Your task to perform on an android device: change keyboard looks Image 0: 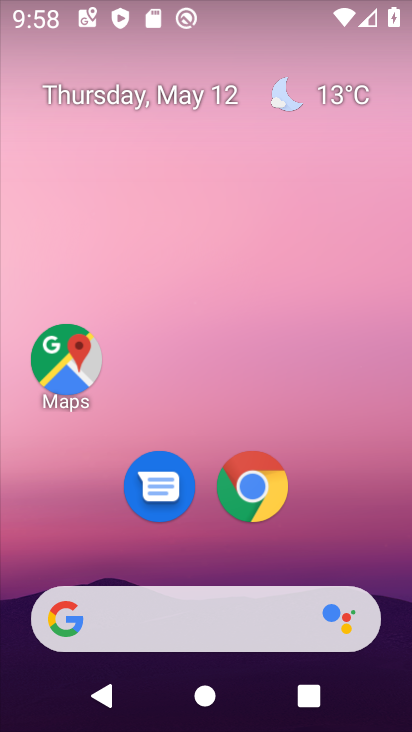
Step 0: drag from (376, 537) to (316, 165)
Your task to perform on an android device: change keyboard looks Image 1: 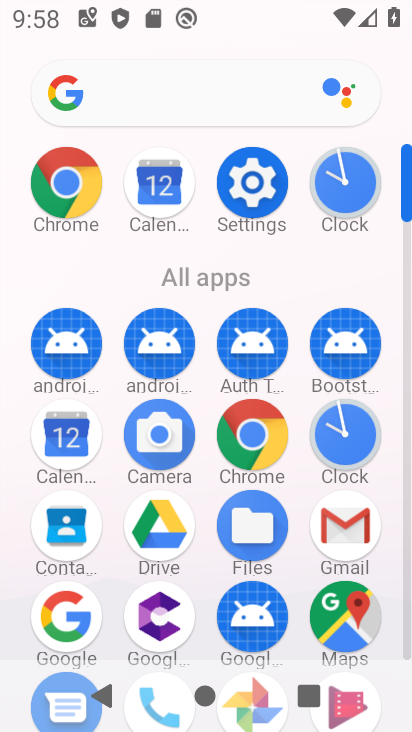
Step 1: click (248, 214)
Your task to perform on an android device: change keyboard looks Image 2: 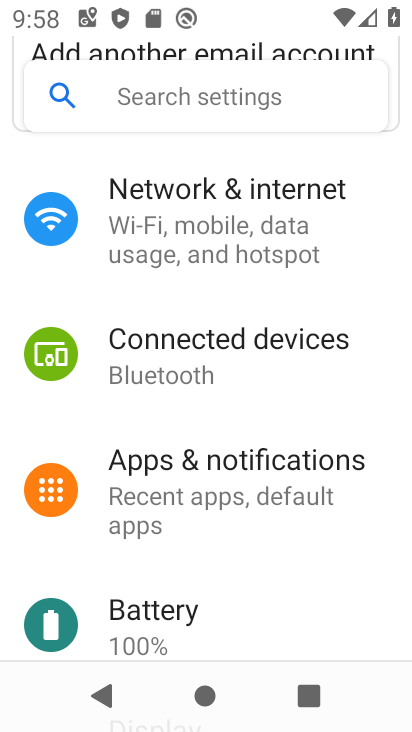
Step 2: drag from (302, 547) to (250, 262)
Your task to perform on an android device: change keyboard looks Image 3: 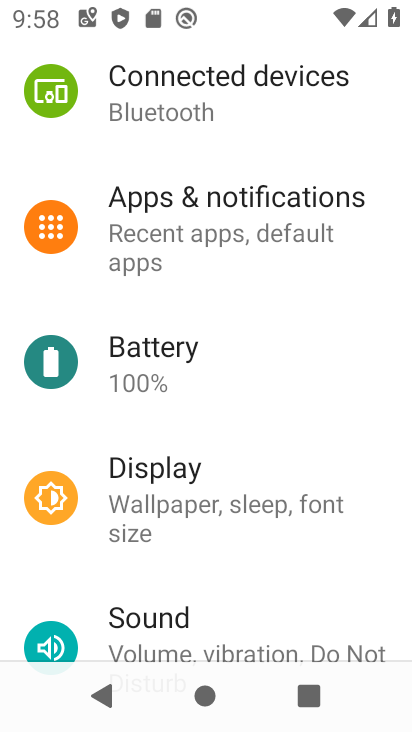
Step 3: drag from (254, 611) to (223, 366)
Your task to perform on an android device: change keyboard looks Image 4: 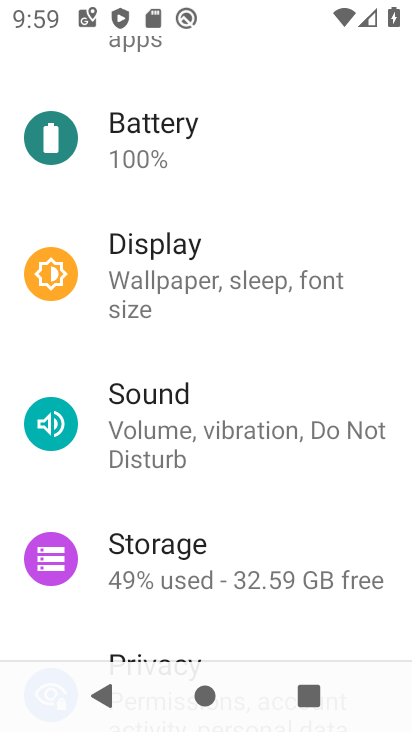
Step 4: drag from (286, 524) to (233, 219)
Your task to perform on an android device: change keyboard looks Image 5: 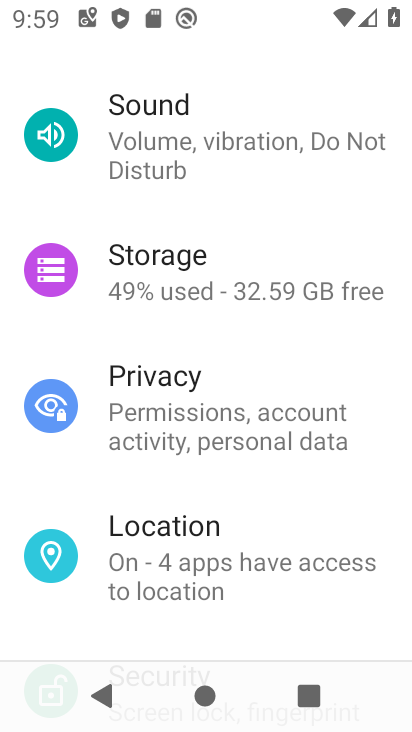
Step 5: drag from (262, 553) to (197, 108)
Your task to perform on an android device: change keyboard looks Image 6: 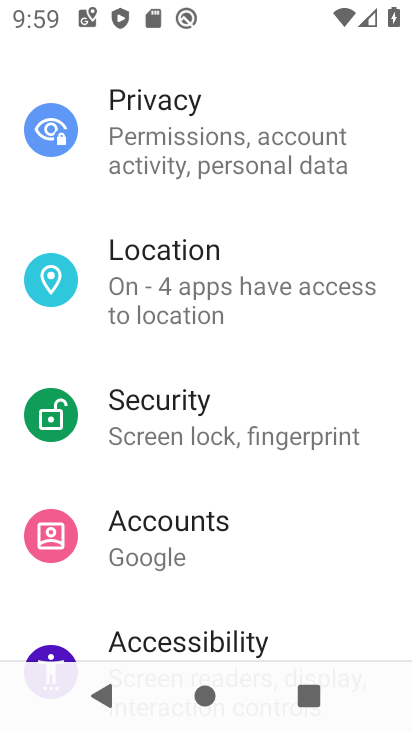
Step 6: drag from (320, 574) to (264, 160)
Your task to perform on an android device: change keyboard looks Image 7: 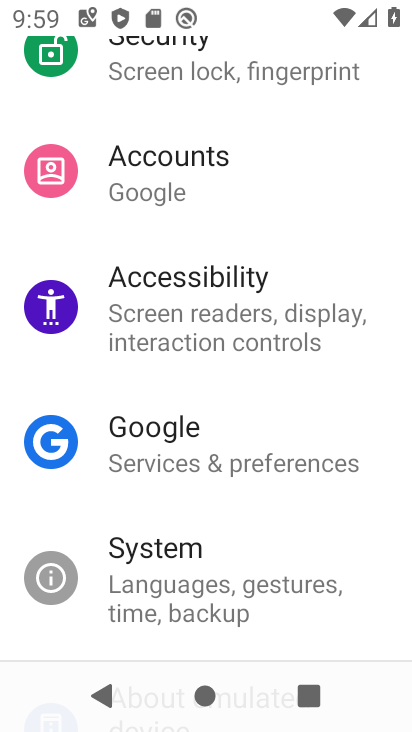
Step 7: click (198, 559)
Your task to perform on an android device: change keyboard looks Image 8: 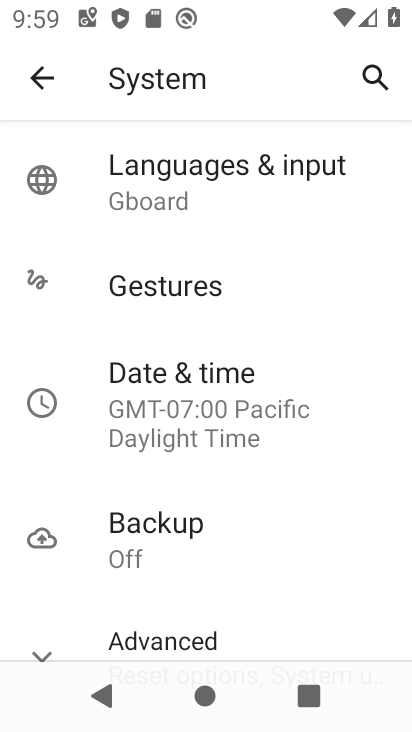
Step 8: click (184, 209)
Your task to perform on an android device: change keyboard looks Image 9: 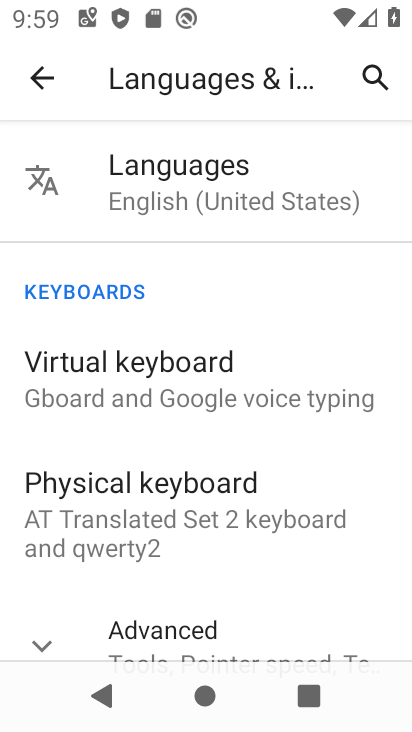
Step 9: click (203, 398)
Your task to perform on an android device: change keyboard looks Image 10: 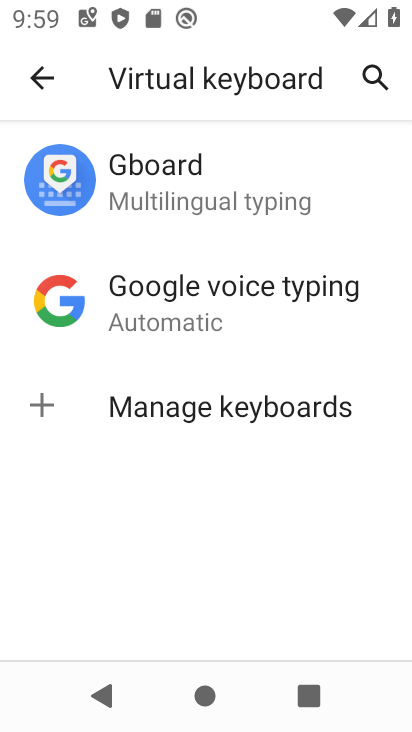
Step 10: click (270, 197)
Your task to perform on an android device: change keyboard looks Image 11: 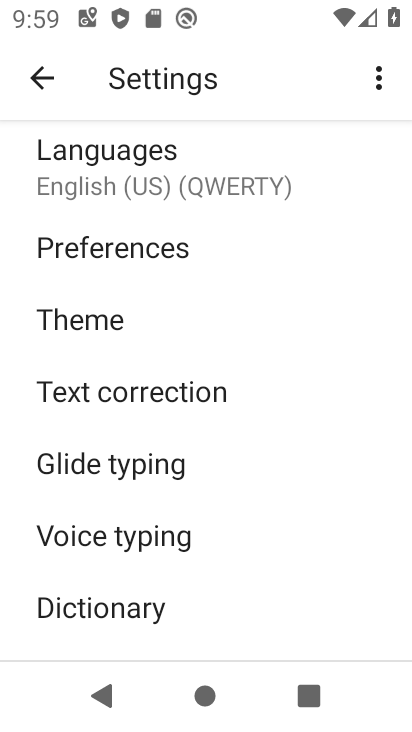
Step 11: click (159, 320)
Your task to perform on an android device: change keyboard looks Image 12: 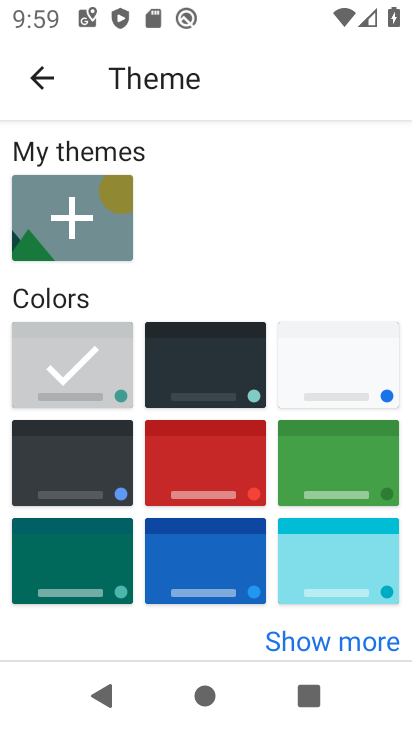
Step 12: click (189, 356)
Your task to perform on an android device: change keyboard looks Image 13: 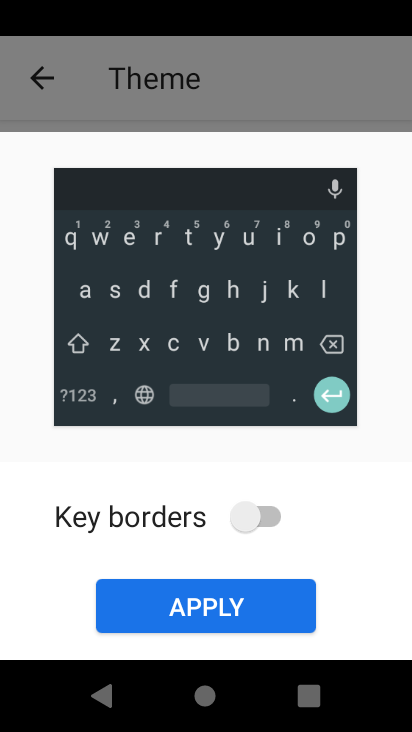
Step 13: click (221, 595)
Your task to perform on an android device: change keyboard looks Image 14: 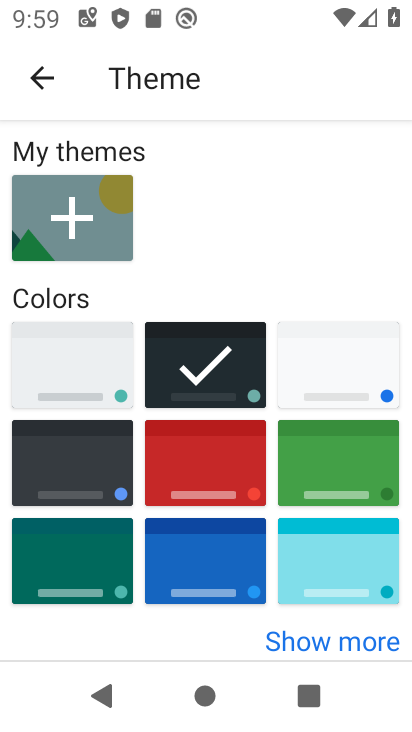
Step 14: task complete